Your task to perform on an android device: open a new tab in the chrome app Image 0: 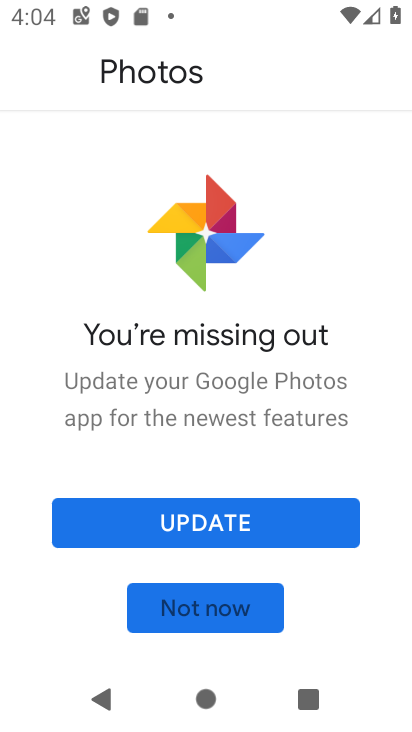
Step 0: press home button
Your task to perform on an android device: open a new tab in the chrome app Image 1: 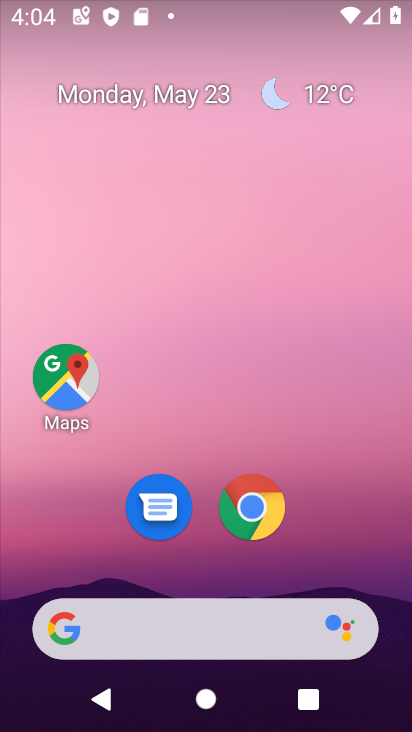
Step 1: click (259, 505)
Your task to perform on an android device: open a new tab in the chrome app Image 2: 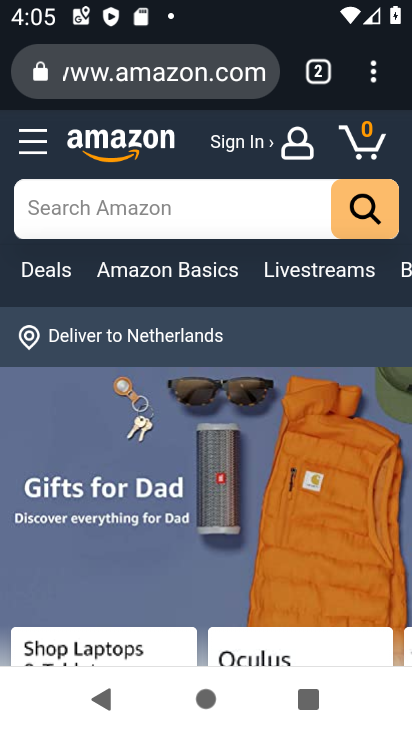
Step 2: click (376, 69)
Your task to perform on an android device: open a new tab in the chrome app Image 3: 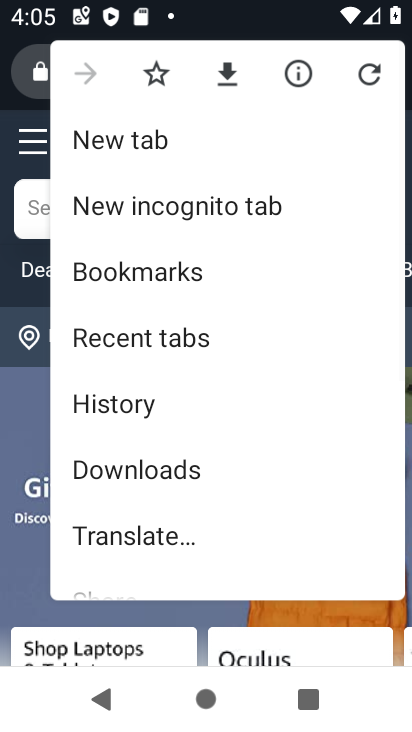
Step 3: click (139, 157)
Your task to perform on an android device: open a new tab in the chrome app Image 4: 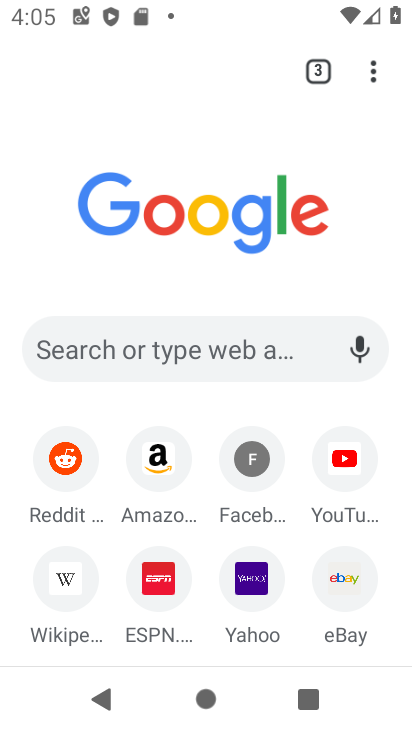
Step 4: task complete